Your task to perform on an android device: create a new album in the google photos Image 0: 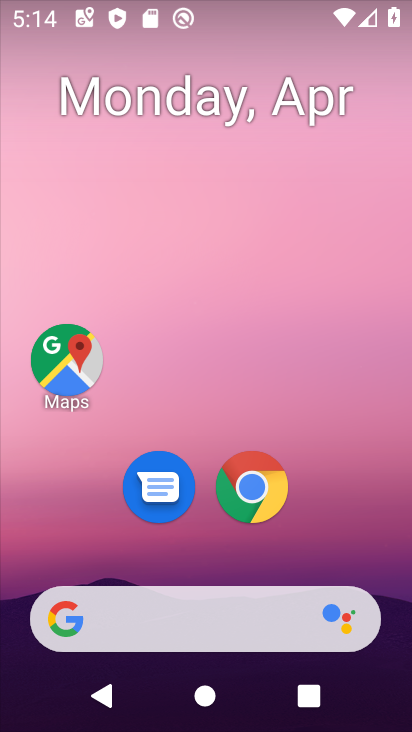
Step 0: drag from (400, 549) to (378, 147)
Your task to perform on an android device: create a new album in the google photos Image 1: 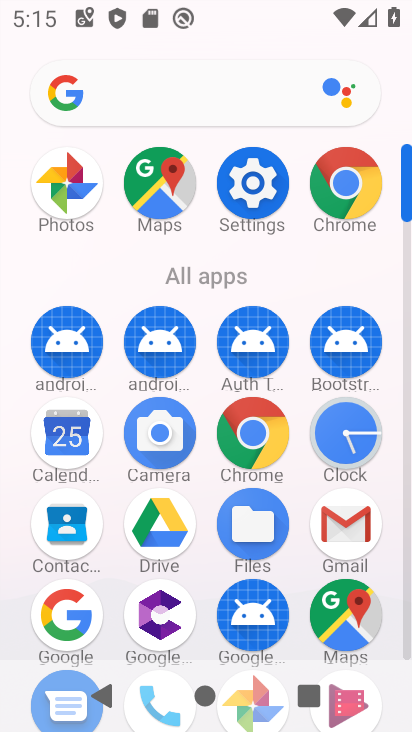
Step 1: click (409, 650)
Your task to perform on an android device: create a new album in the google photos Image 2: 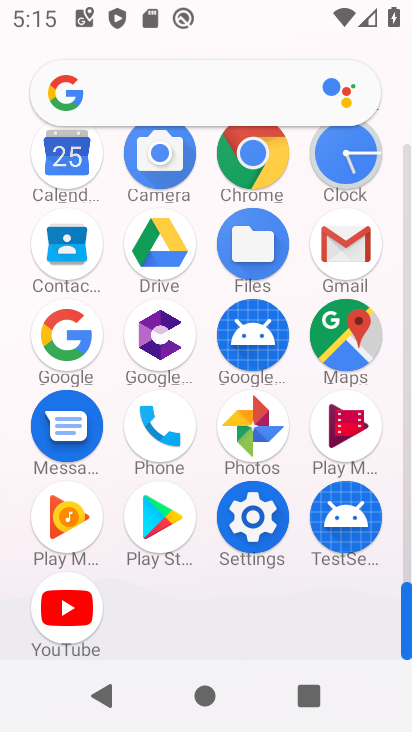
Step 2: click (273, 430)
Your task to perform on an android device: create a new album in the google photos Image 3: 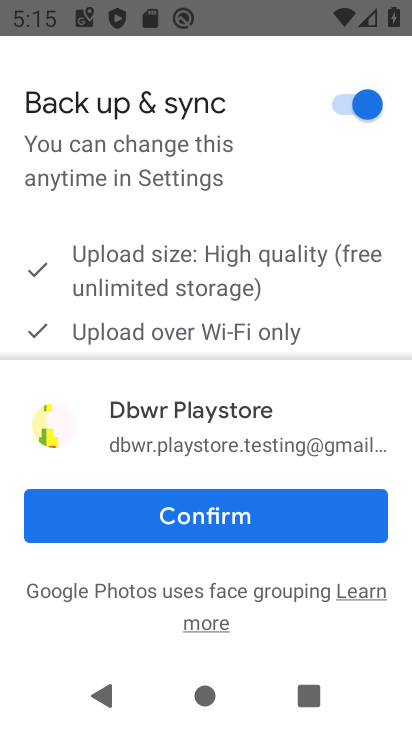
Step 3: click (282, 510)
Your task to perform on an android device: create a new album in the google photos Image 4: 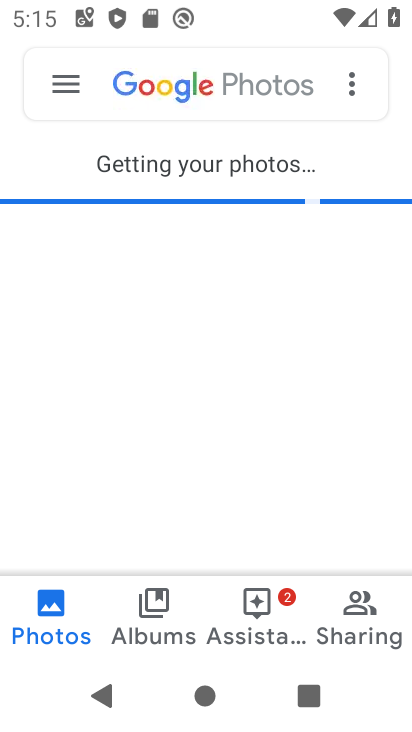
Step 4: click (269, 616)
Your task to perform on an android device: create a new album in the google photos Image 5: 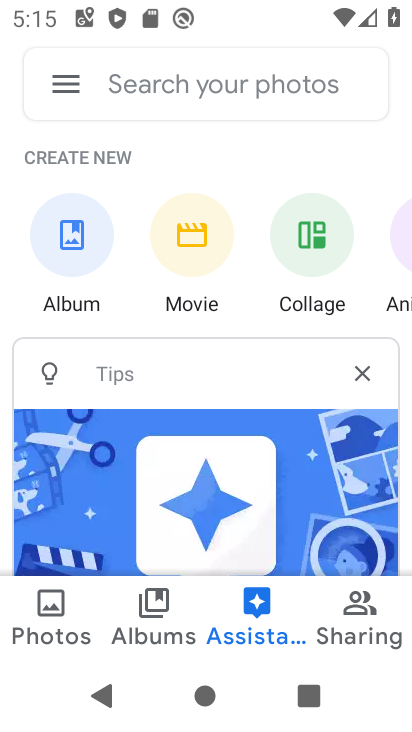
Step 5: click (82, 247)
Your task to perform on an android device: create a new album in the google photos Image 6: 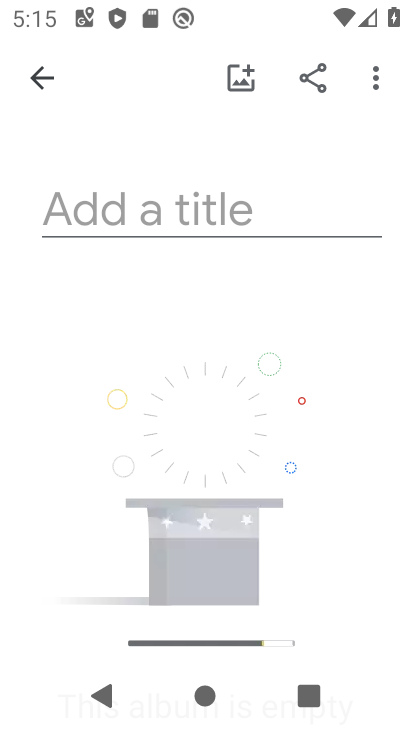
Step 6: click (254, 218)
Your task to perform on an android device: create a new album in the google photos Image 7: 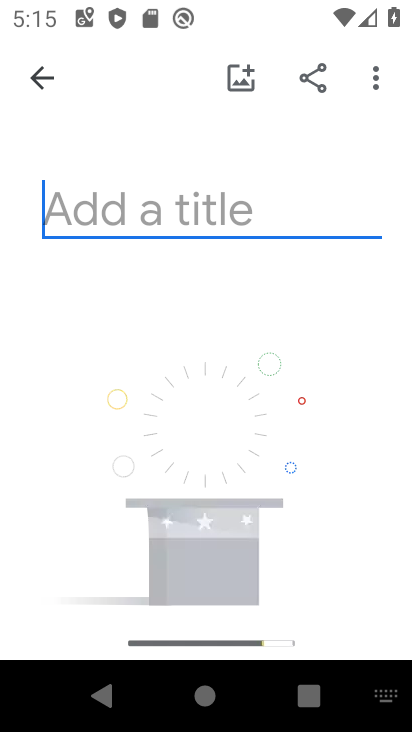
Step 7: type "kvhvkhvbk"
Your task to perform on an android device: create a new album in the google photos Image 8: 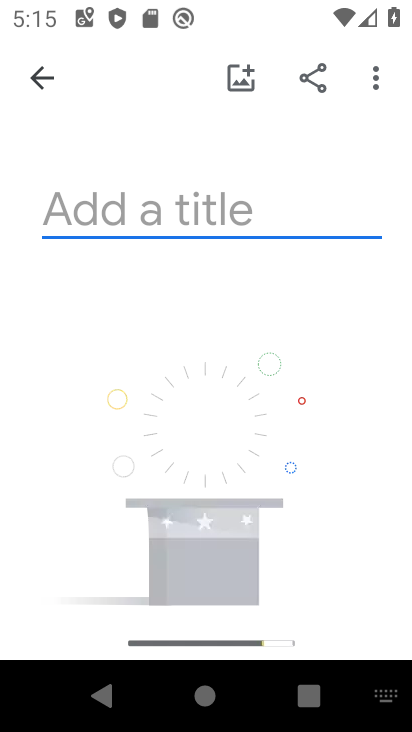
Step 8: click (398, 458)
Your task to perform on an android device: create a new album in the google photos Image 9: 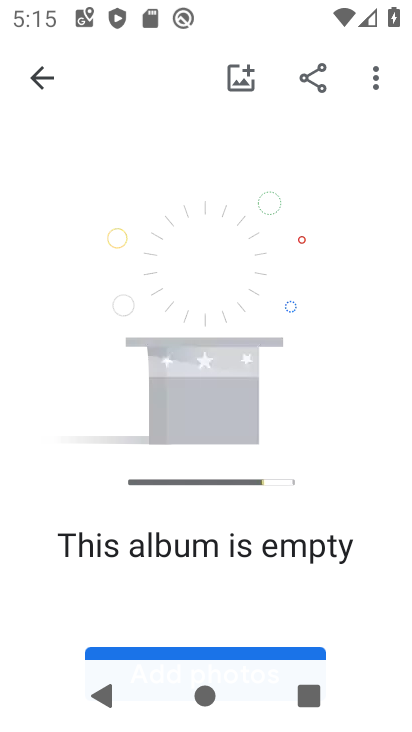
Step 9: click (244, 72)
Your task to perform on an android device: create a new album in the google photos Image 10: 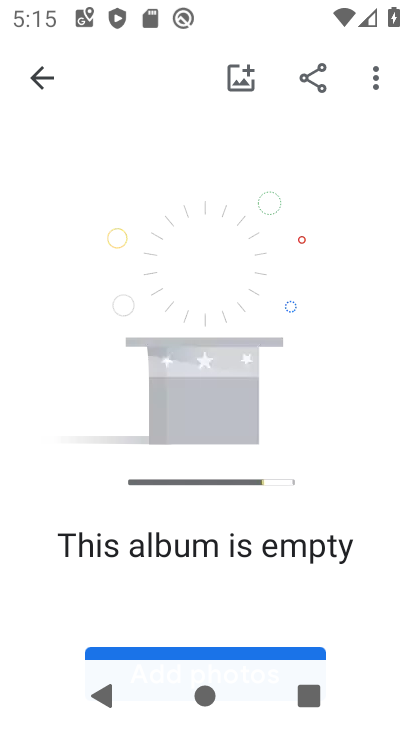
Step 10: click (244, 72)
Your task to perform on an android device: create a new album in the google photos Image 11: 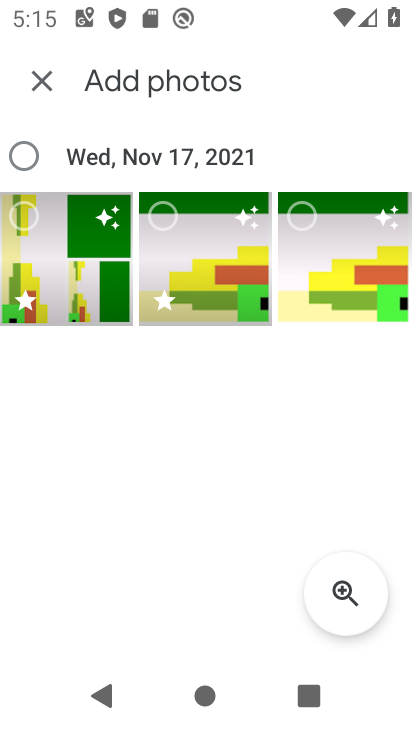
Step 11: click (293, 196)
Your task to perform on an android device: create a new album in the google photos Image 12: 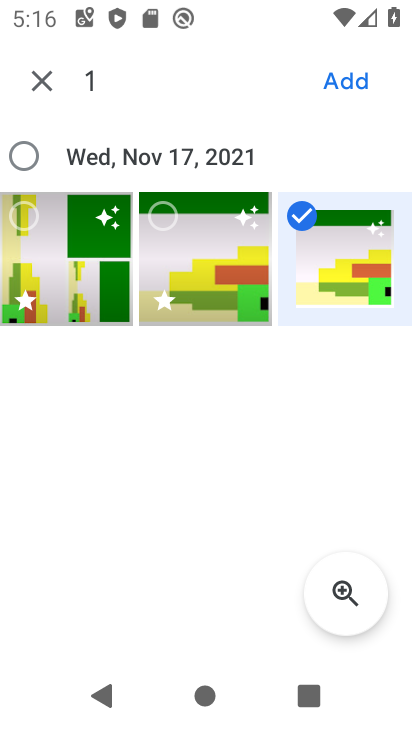
Step 12: click (173, 209)
Your task to perform on an android device: create a new album in the google photos Image 13: 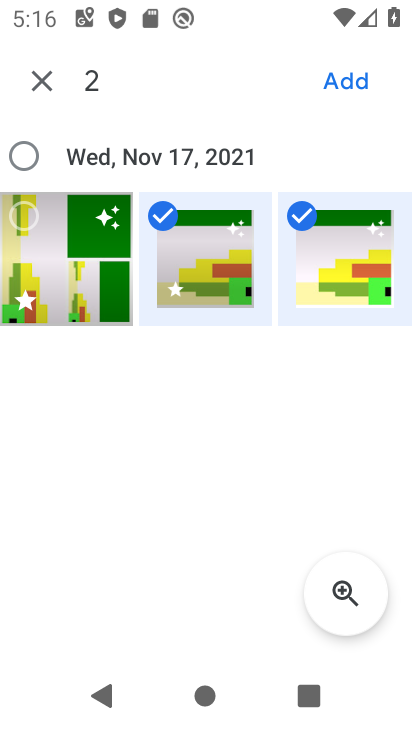
Step 13: click (41, 214)
Your task to perform on an android device: create a new album in the google photos Image 14: 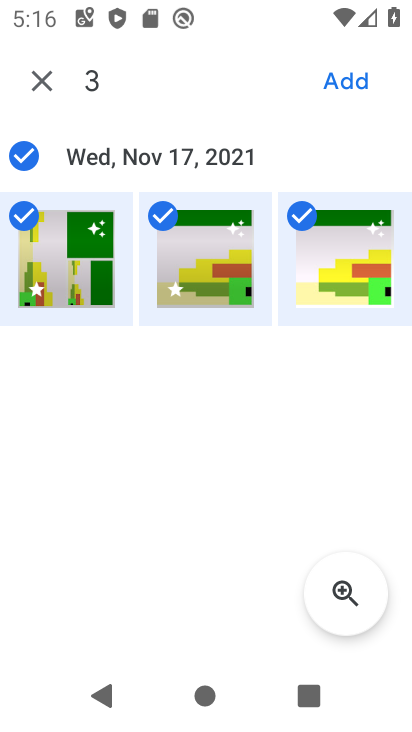
Step 14: click (358, 92)
Your task to perform on an android device: create a new album in the google photos Image 15: 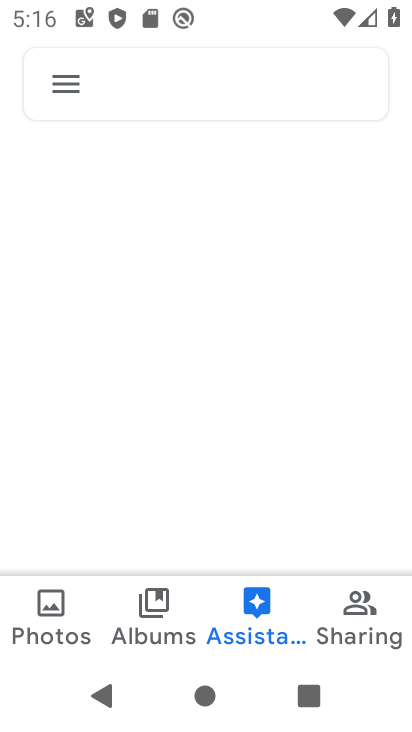
Step 15: task complete